Your task to perform on an android device: toggle translation in the chrome app Image 0: 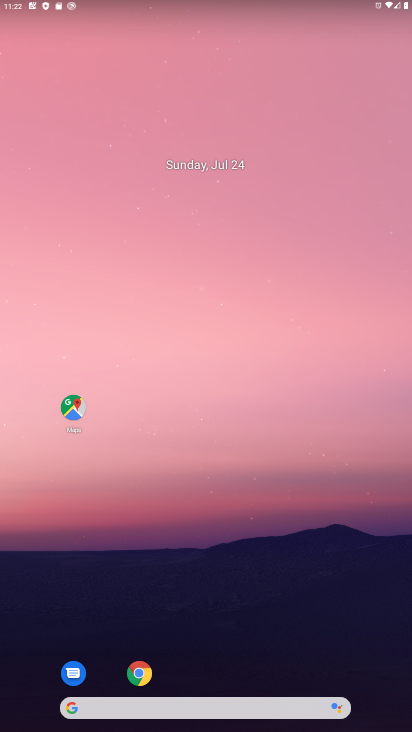
Step 0: drag from (322, 626) to (263, 85)
Your task to perform on an android device: toggle translation in the chrome app Image 1: 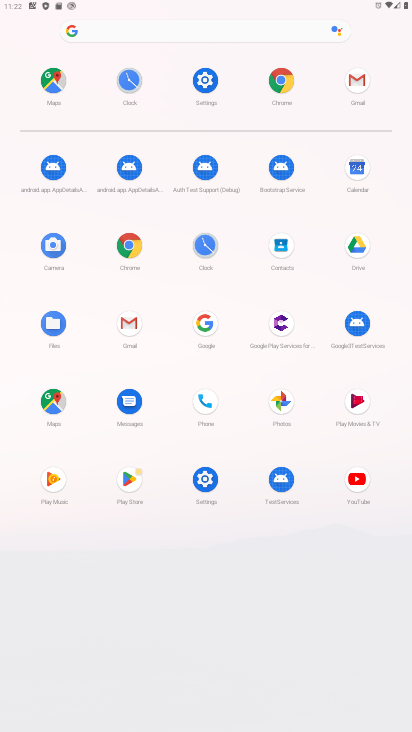
Step 1: click (280, 81)
Your task to perform on an android device: toggle translation in the chrome app Image 2: 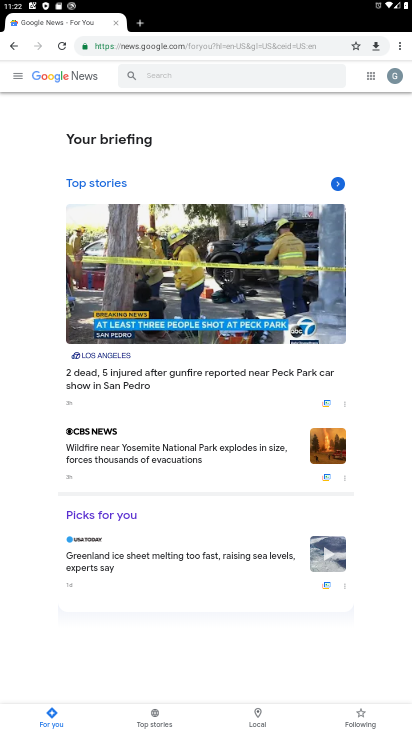
Step 2: drag from (398, 47) to (304, 332)
Your task to perform on an android device: toggle translation in the chrome app Image 3: 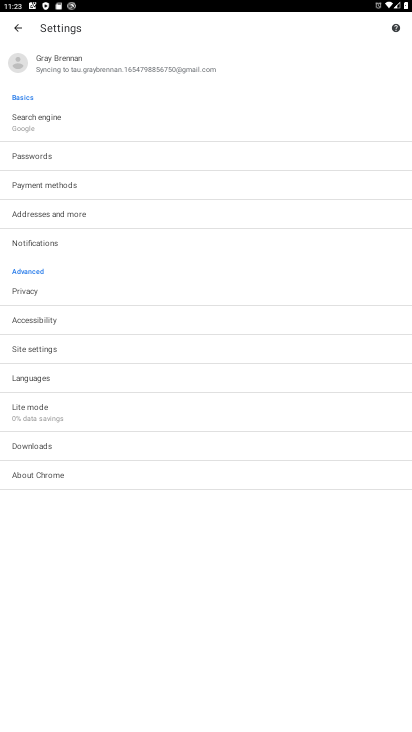
Step 3: click (46, 377)
Your task to perform on an android device: toggle translation in the chrome app Image 4: 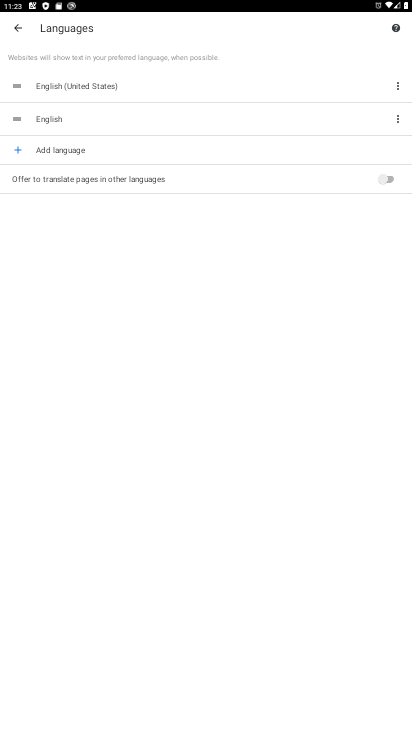
Step 4: click (382, 177)
Your task to perform on an android device: toggle translation in the chrome app Image 5: 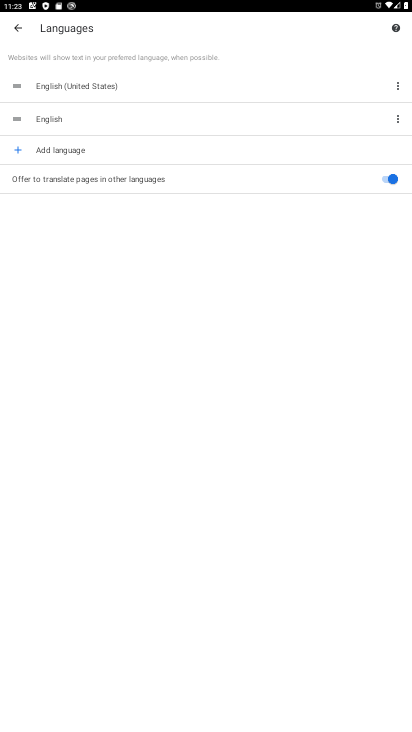
Step 5: task complete